Your task to perform on an android device: check storage Image 0: 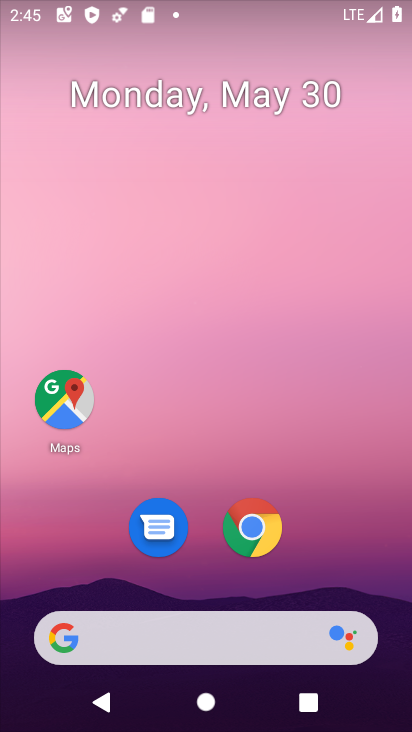
Step 0: drag from (319, 561) to (306, 71)
Your task to perform on an android device: check storage Image 1: 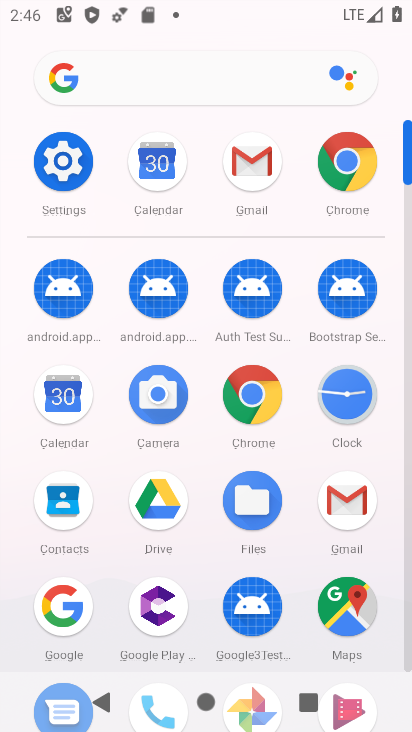
Step 1: click (75, 156)
Your task to perform on an android device: check storage Image 2: 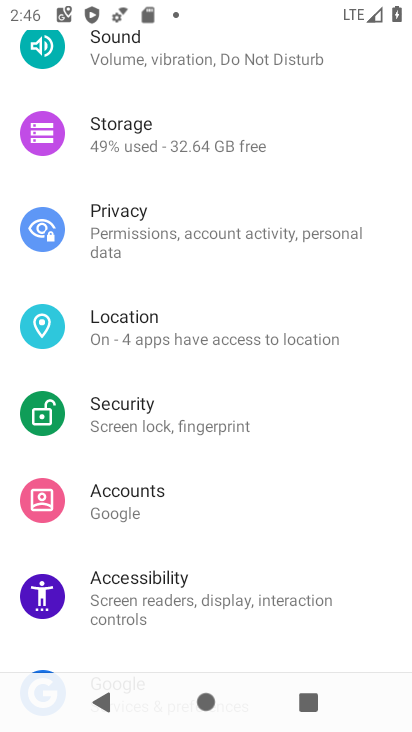
Step 2: click (166, 139)
Your task to perform on an android device: check storage Image 3: 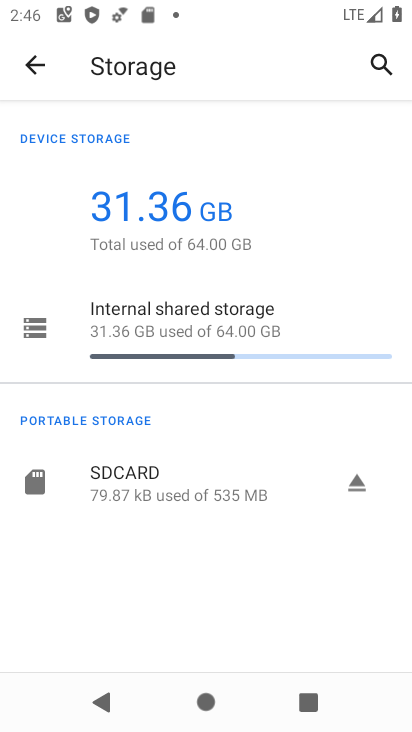
Step 3: task complete